Your task to perform on an android device: Go to wifi settings Image 0: 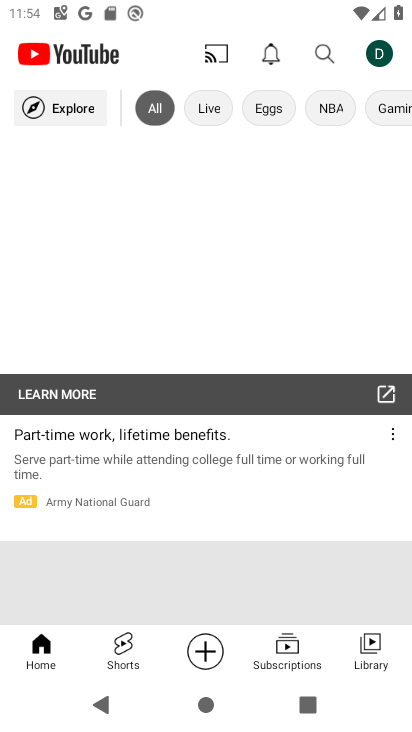
Step 0: press home button
Your task to perform on an android device: Go to wifi settings Image 1: 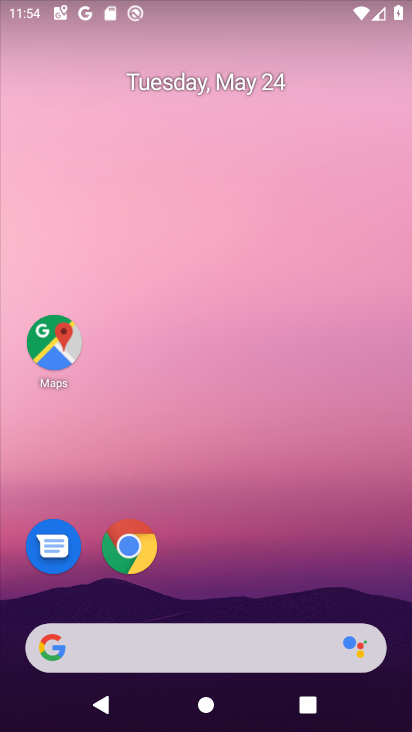
Step 1: drag from (228, 566) to (317, 6)
Your task to perform on an android device: Go to wifi settings Image 2: 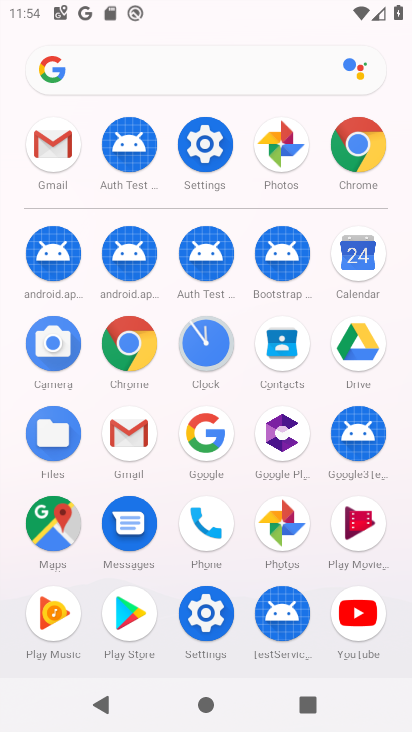
Step 2: click (214, 632)
Your task to perform on an android device: Go to wifi settings Image 3: 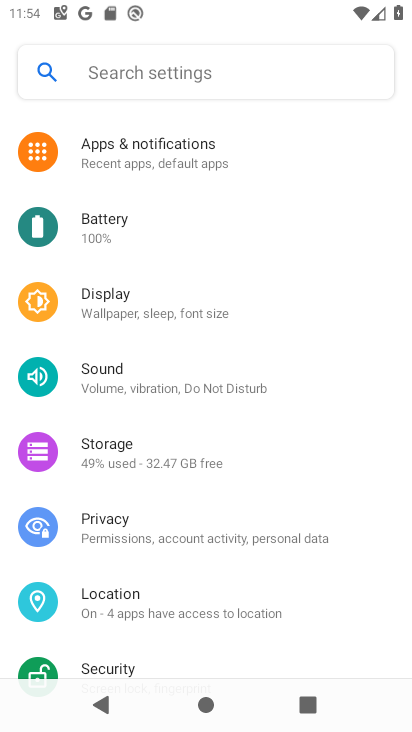
Step 3: drag from (166, 171) to (164, 575)
Your task to perform on an android device: Go to wifi settings Image 4: 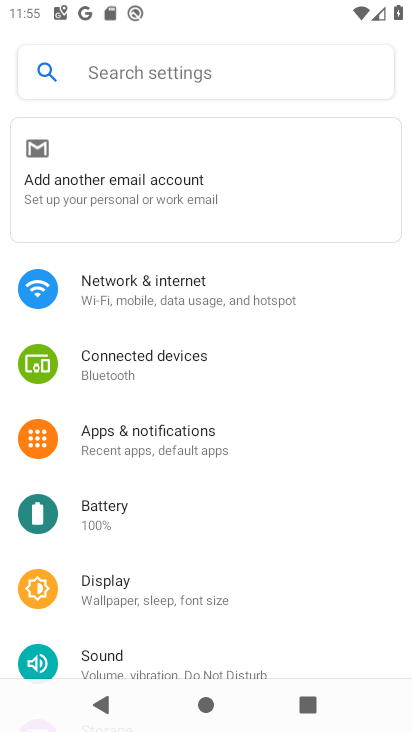
Step 4: click (181, 307)
Your task to perform on an android device: Go to wifi settings Image 5: 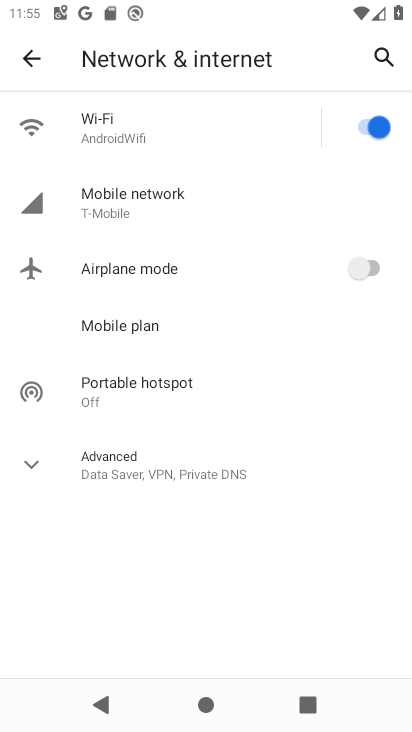
Step 5: click (159, 123)
Your task to perform on an android device: Go to wifi settings Image 6: 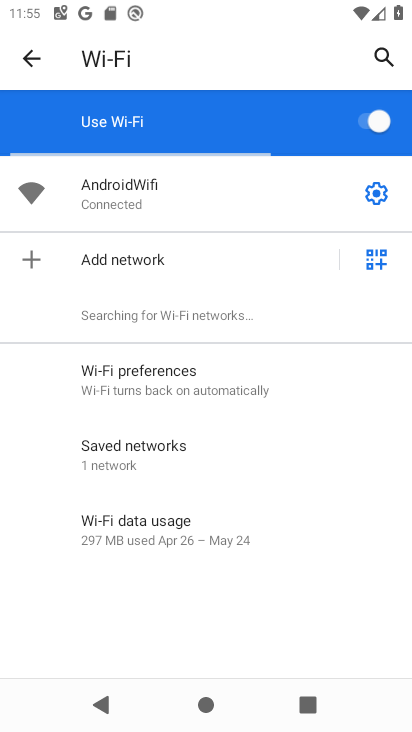
Step 6: task complete